Your task to perform on an android device: View the shopping cart on newegg. Search for "dell xps" on newegg, select the first entry, add it to the cart, then select checkout. Image 0: 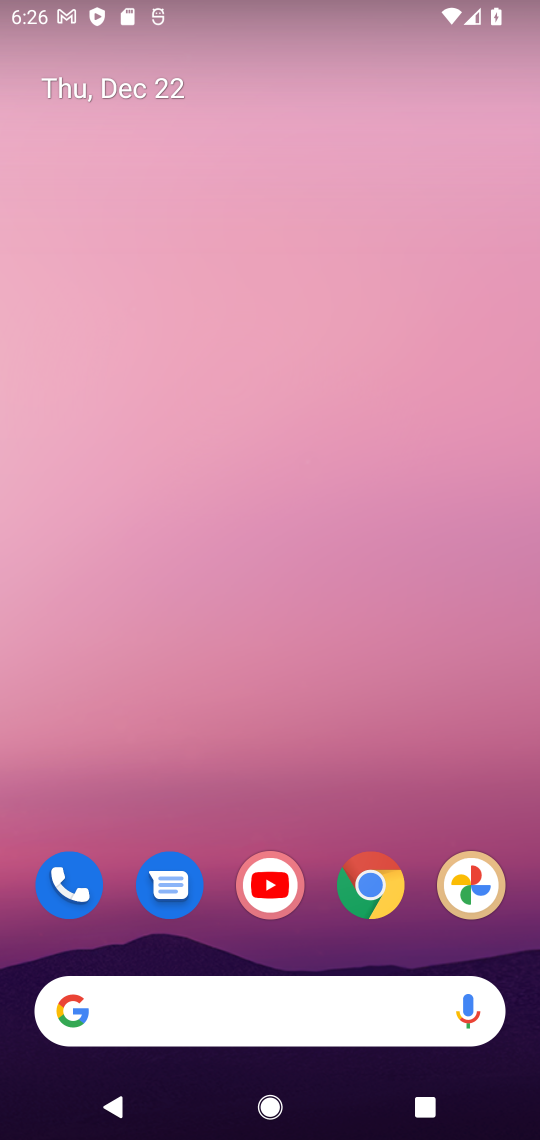
Step 0: click (369, 898)
Your task to perform on an android device: View the shopping cart on newegg. Search for "dell xps" on newegg, select the first entry, add it to the cart, then select checkout. Image 1: 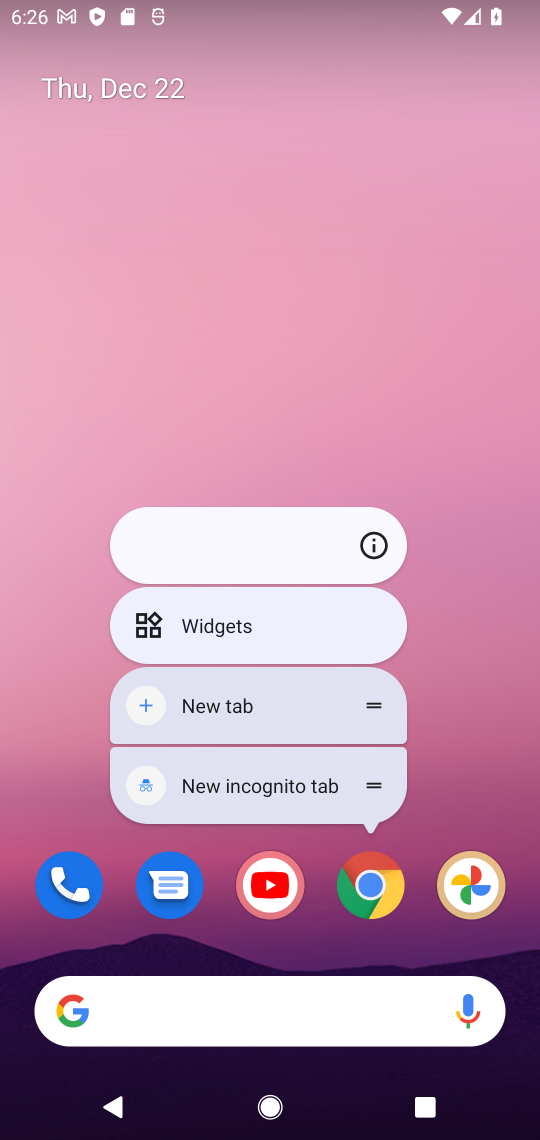
Step 1: click (369, 898)
Your task to perform on an android device: View the shopping cart on newegg. Search for "dell xps" on newegg, select the first entry, add it to the cart, then select checkout. Image 2: 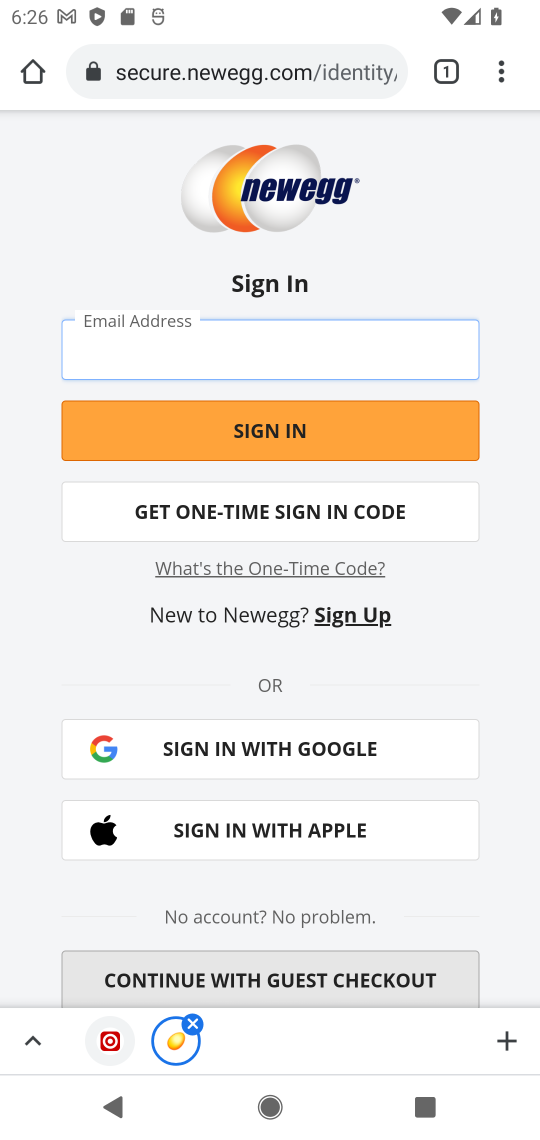
Step 2: press back button
Your task to perform on an android device: View the shopping cart on newegg. Search for "dell xps" on newegg, select the first entry, add it to the cart, then select checkout. Image 3: 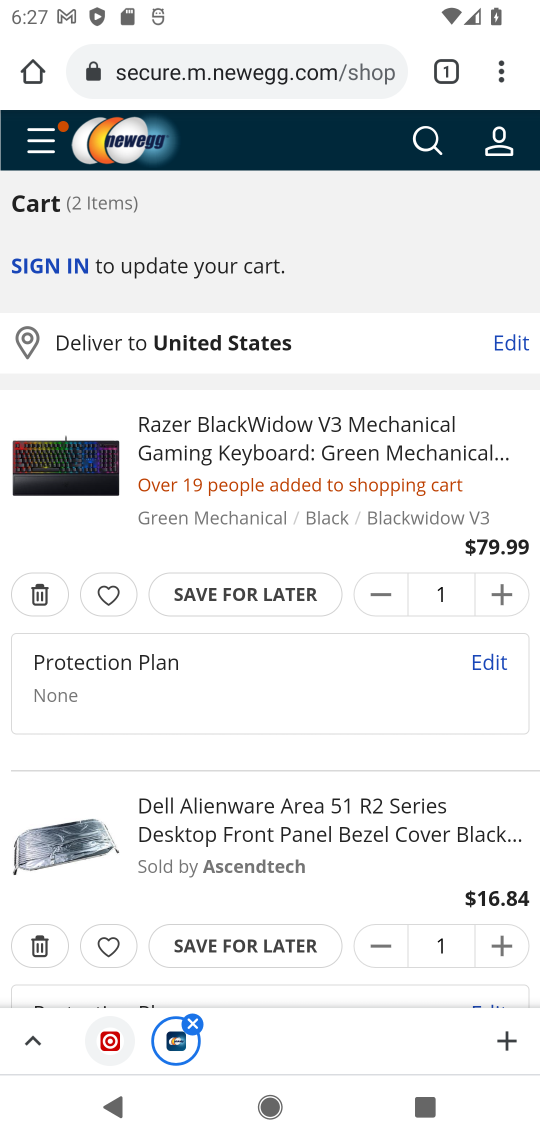
Step 3: click (421, 145)
Your task to perform on an android device: View the shopping cart on newegg. Search for "dell xps" on newegg, select the first entry, add it to the cart, then select checkout. Image 4: 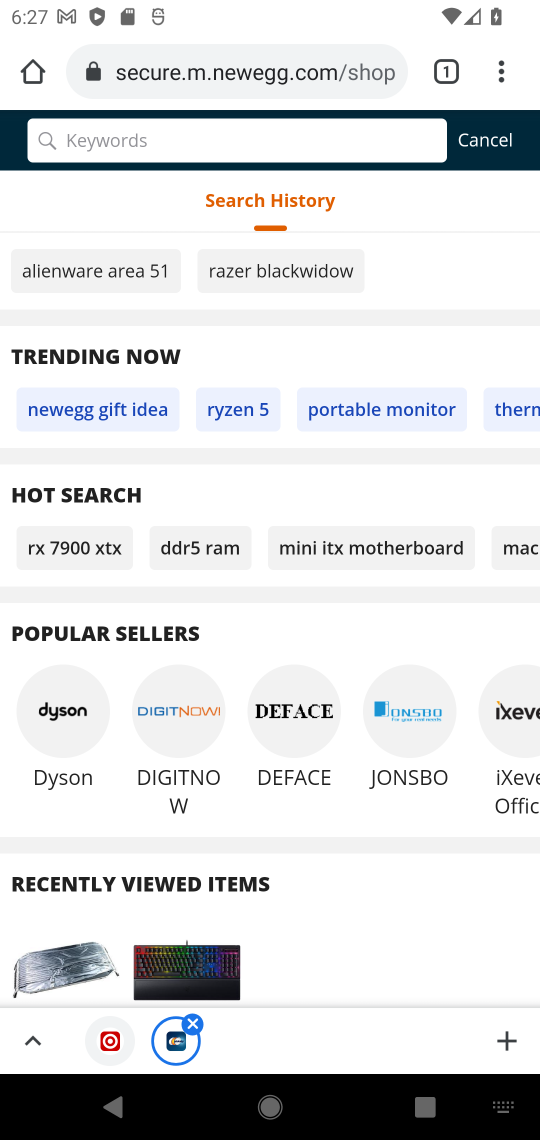
Step 4: type "dell xps"
Your task to perform on an android device: View the shopping cart on newegg. Search for "dell xps" on newegg, select the first entry, add it to the cart, then select checkout. Image 5: 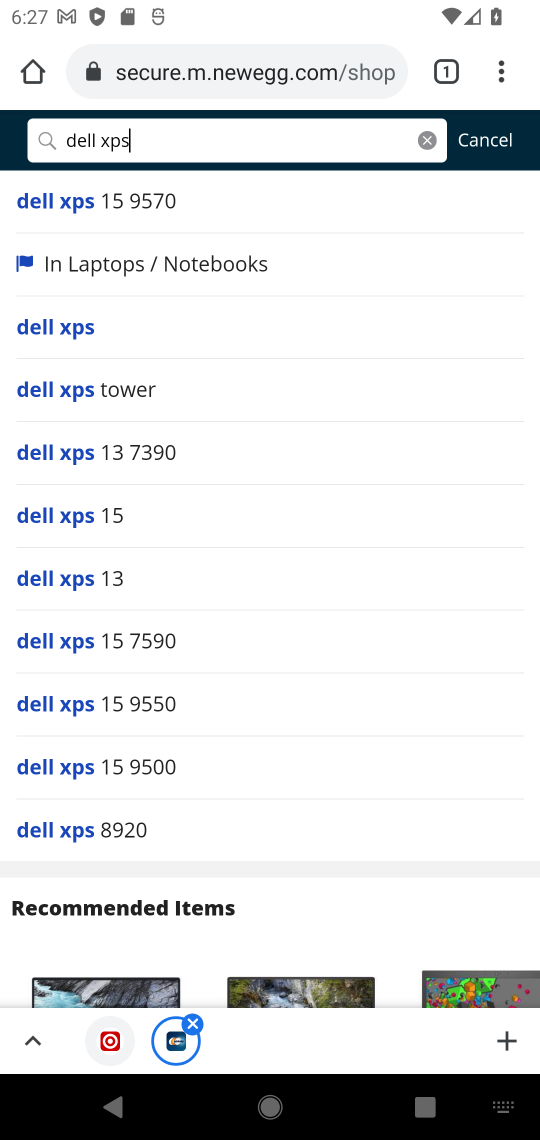
Step 5: click (69, 328)
Your task to perform on an android device: View the shopping cart on newegg. Search for "dell xps" on newegg, select the first entry, add it to the cart, then select checkout. Image 6: 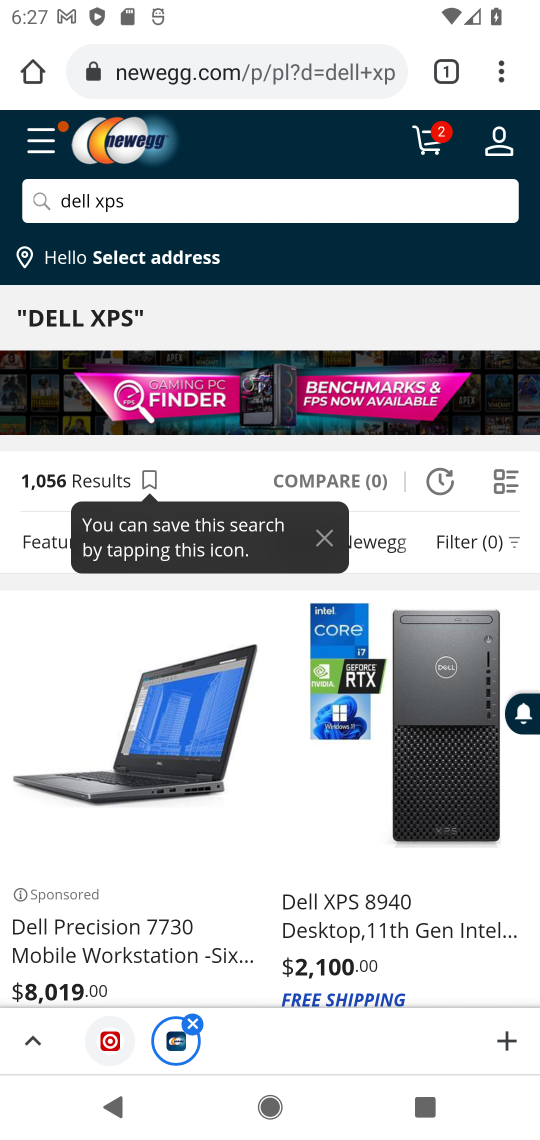
Step 6: task complete